Your task to perform on an android device: change the clock display to digital Image 0: 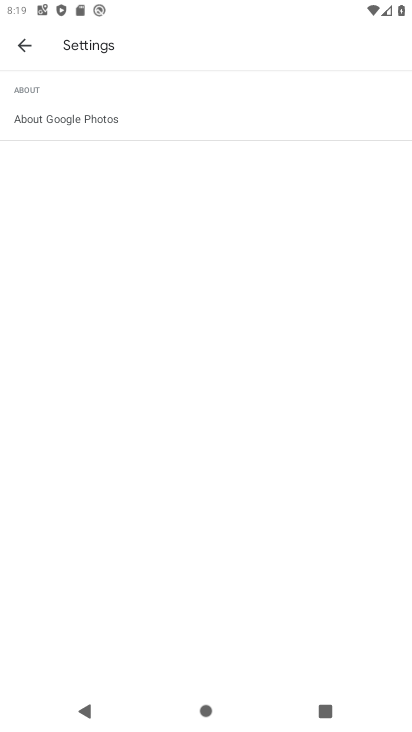
Step 0: press home button
Your task to perform on an android device: change the clock display to digital Image 1: 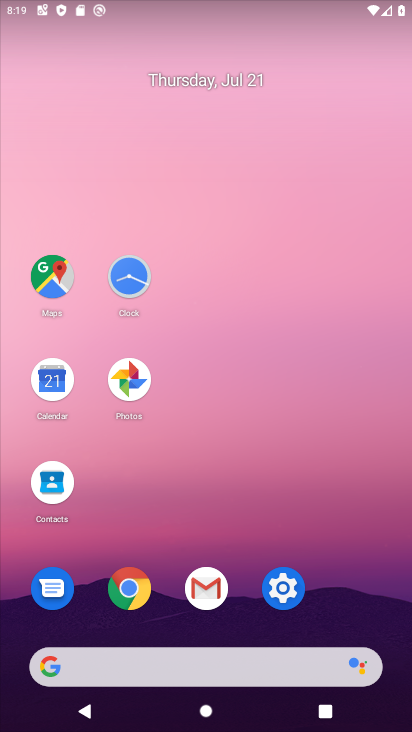
Step 1: click (139, 272)
Your task to perform on an android device: change the clock display to digital Image 2: 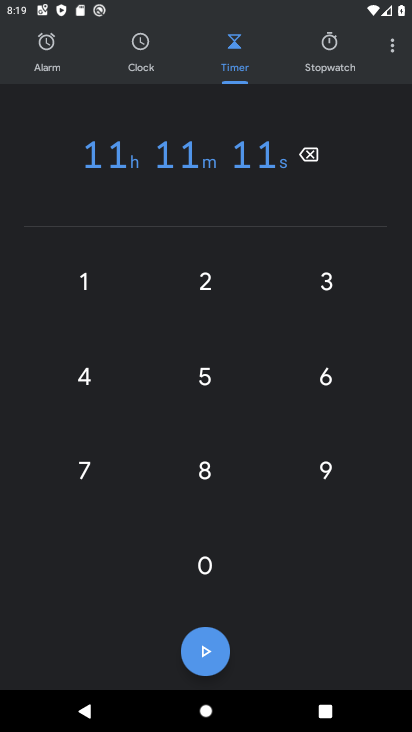
Step 2: click (399, 51)
Your task to perform on an android device: change the clock display to digital Image 3: 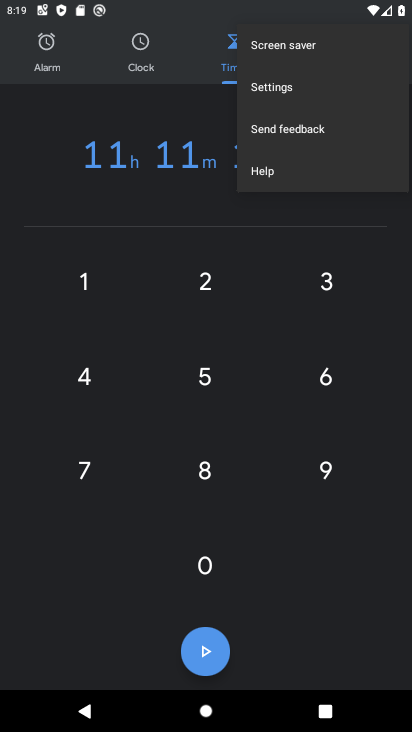
Step 3: click (269, 88)
Your task to perform on an android device: change the clock display to digital Image 4: 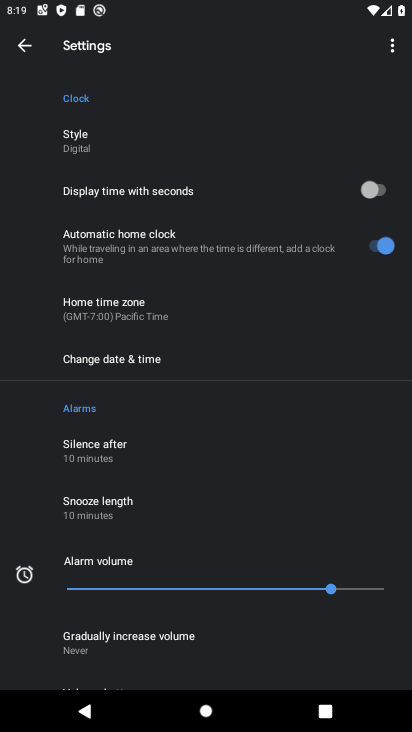
Step 4: click (81, 136)
Your task to perform on an android device: change the clock display to digital Image 5: 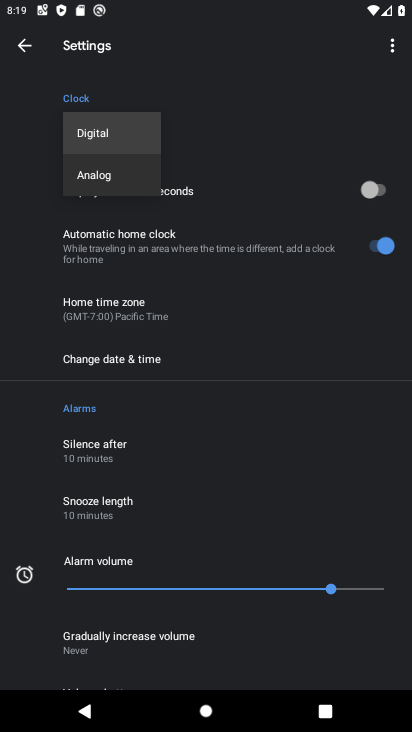
Step 5: task complete